Your task to perform on an android device: check the backup settings in the google photos Image 0: 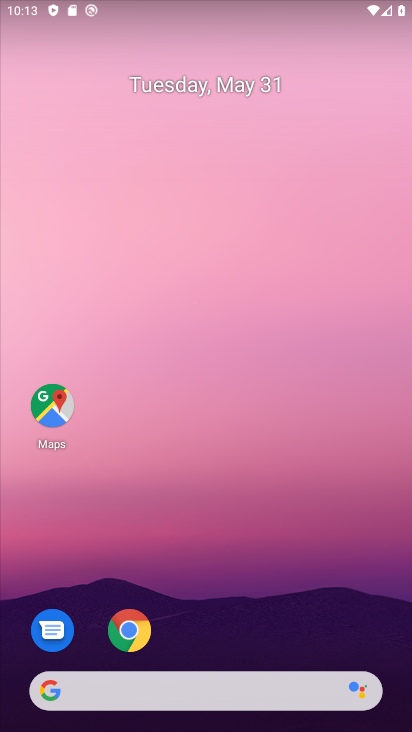
Step 0: drag from (249, 598) to (170, 117)
Your task to perform on an android device: check the backup settings in the google photos Image 1: 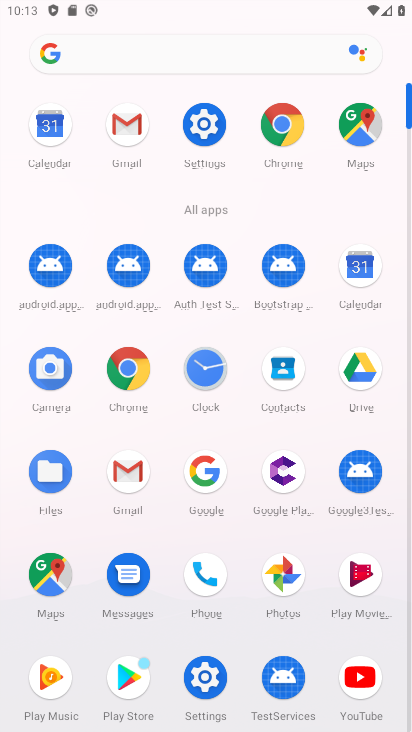
Step 1: click (287, 570)
Your task to perform on an android device: check the backup settings in the google photos Image 2: 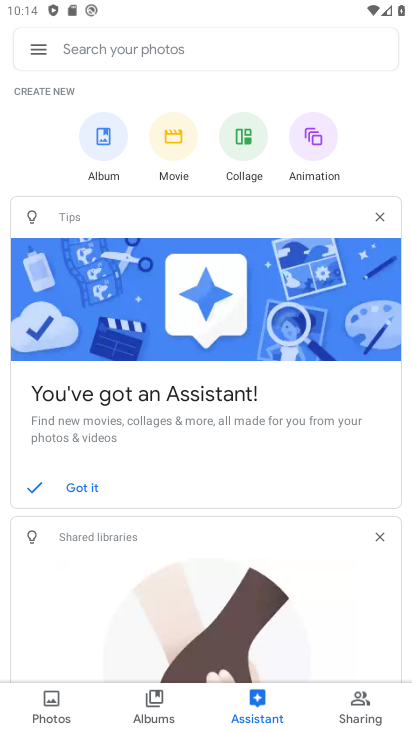
Step 2: click (34, 48)
Your task to perform on an android device: check the backup settings in the google photos Image 3: 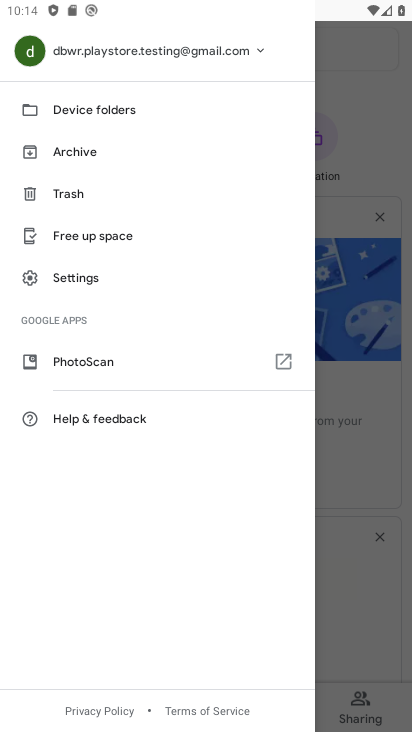
Step 3: click (77, 276)
Your task to perform on an android device: check the backup settings in the google photos Image 4: 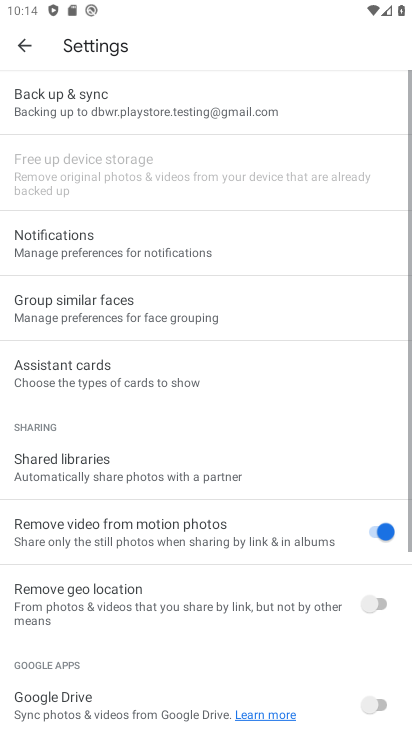
Step 4: click (97, 108)
Your task to perform on an android device: check the backup settings in the google photos Image 5: 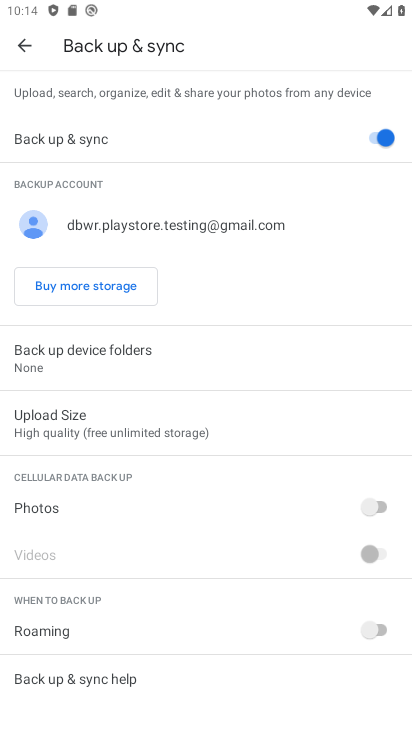
Step 5: click (138, 79)
Your task to perform on an android device: check the backup settings in the google photos Image 6: 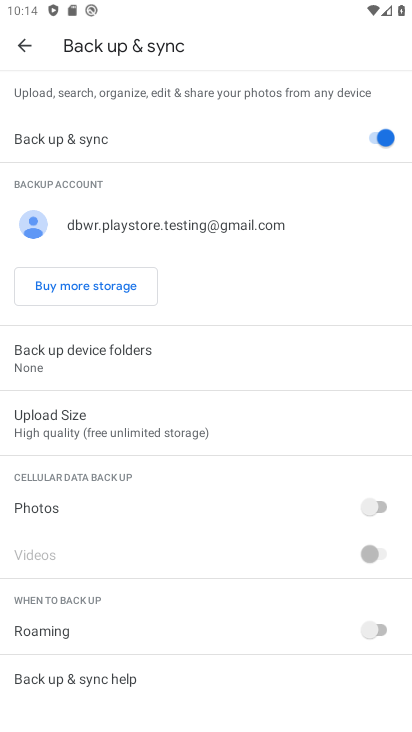
Step 6: task complete